Your task to perform on an android device: check android version Image 0: 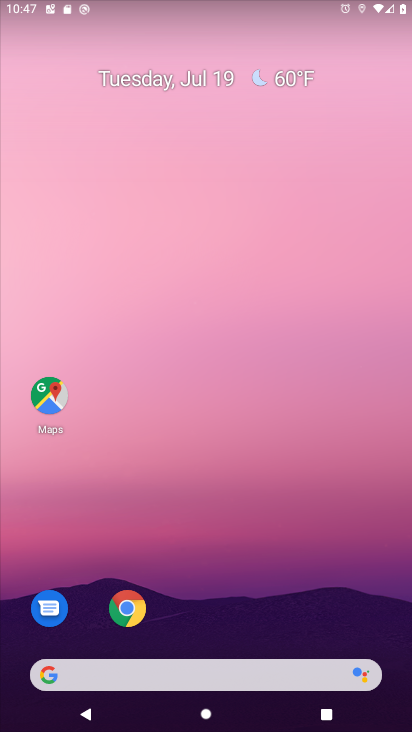
Step 0: drag from (131, 164) to (90, 6)
Your task to perform on an android device: check android version Image 1: 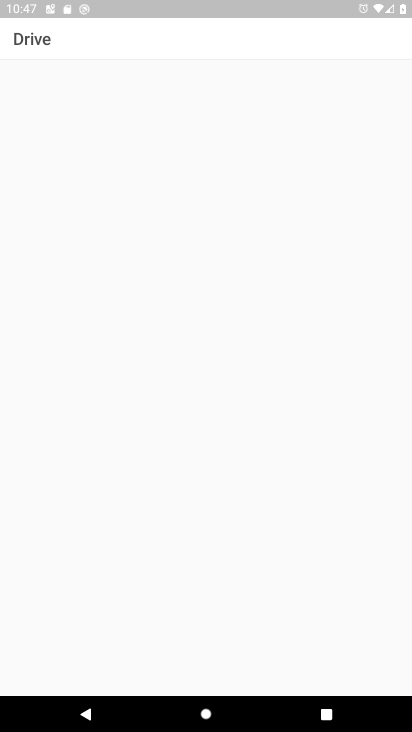
Step 1: press home button
Your task to perform on an android device: check android version Image 2: 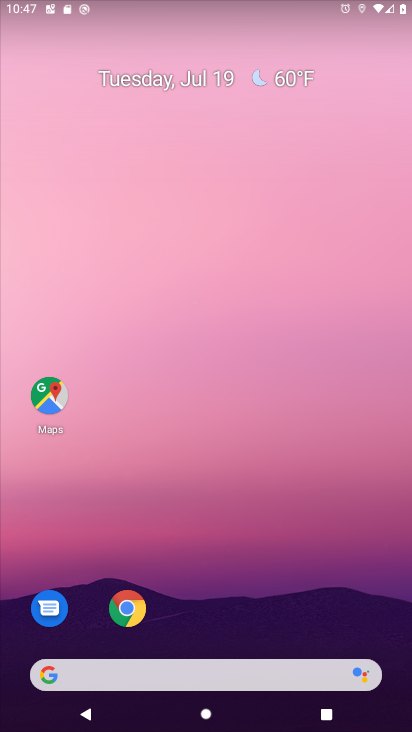
Step 2: drag from (214, 630) to (106, 3)
Your task to perform on an android device: check android version Image 3: 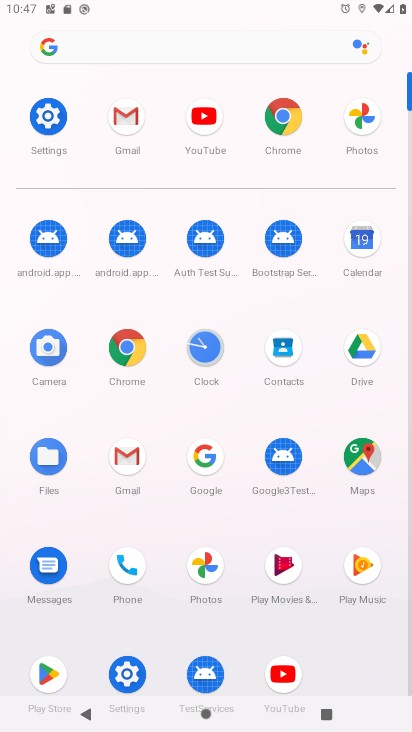
Step 3: click (35, 124)
Your task to perform on an android device: check android version Image 4: 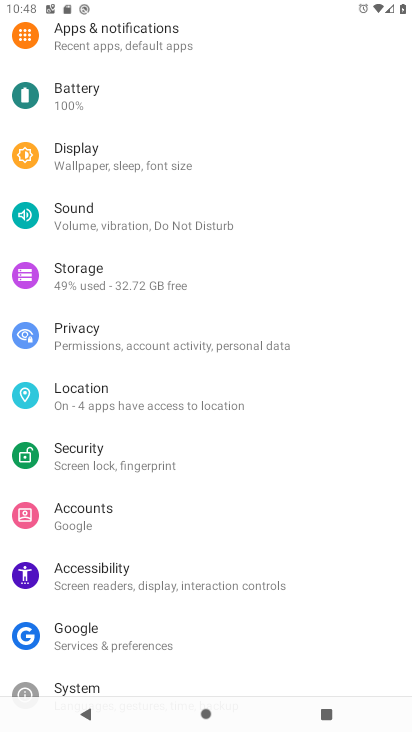
Step 4: drag from (124, 676) to (103, 168)
Your task to perform on an android device: check android version Image 5: 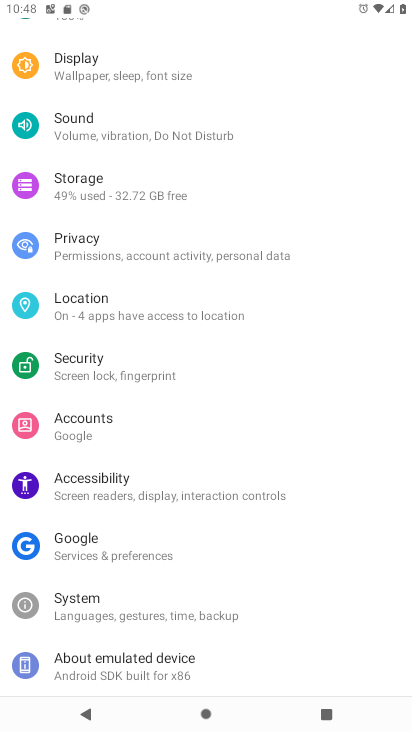
Step 5: click (129, 643)
Your task to perform on an android device: check android version Image 6: 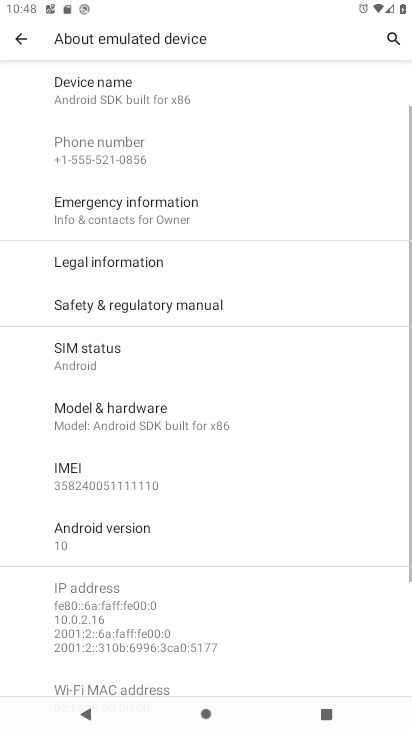
Step 6: click (86, 546)
Your task to perform on an android device: check android version Image 7: 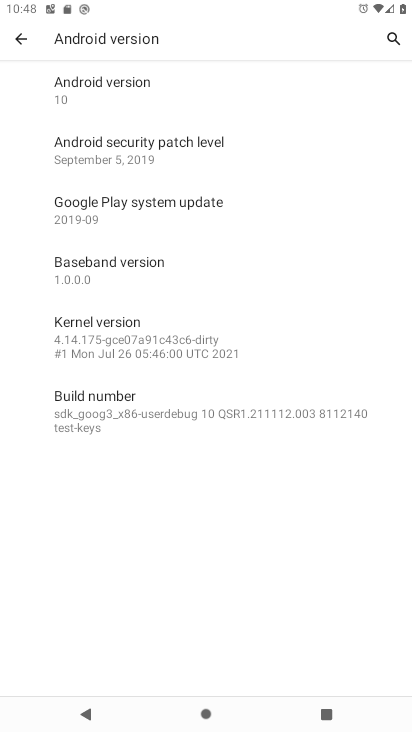
Step 7: click (78, 75)
Your task to perform on an android device: check android version Image 8: 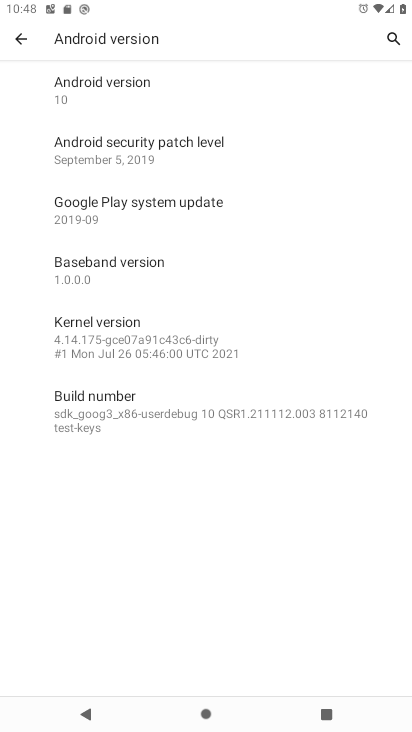
Step 8: task complete